Your task to perform on an android device: Open Youtube and go to the subscriptions tab Image 0: 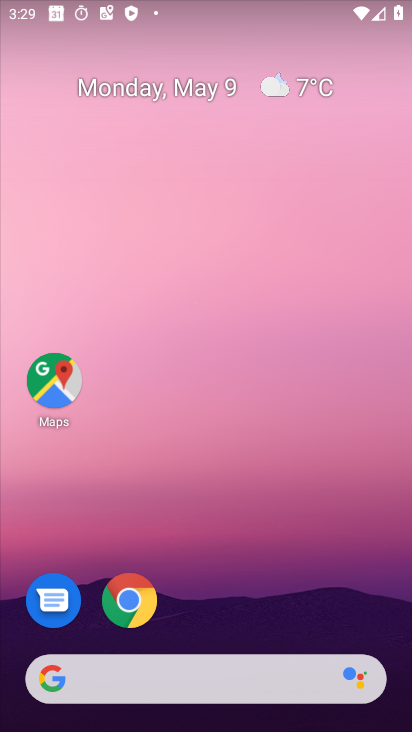
Step 0: drag from (265, 628) to (161, 139)
Your task to perform on an android device: Open Youtube and go to the subscriptions tab Image 1: 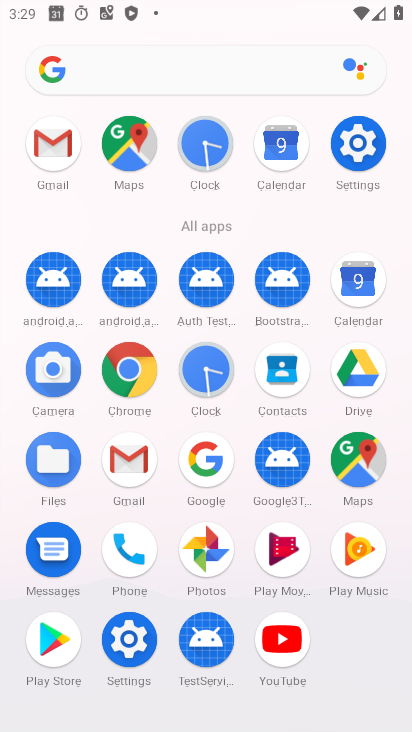
Step 1: click (287, 643)
Your task to perform on an android device: Open Youtube and go to the subscriptions tab Image 2: 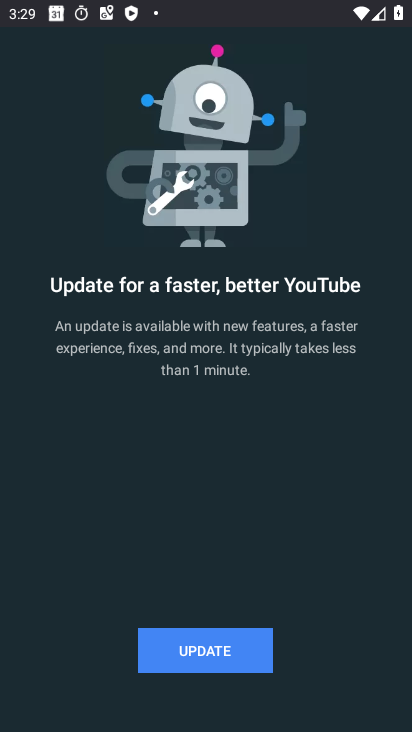
Step 2: click (233, 650)
Your task to perform on an android device: Open Youtube and go to the subscriptions tab Image 3: 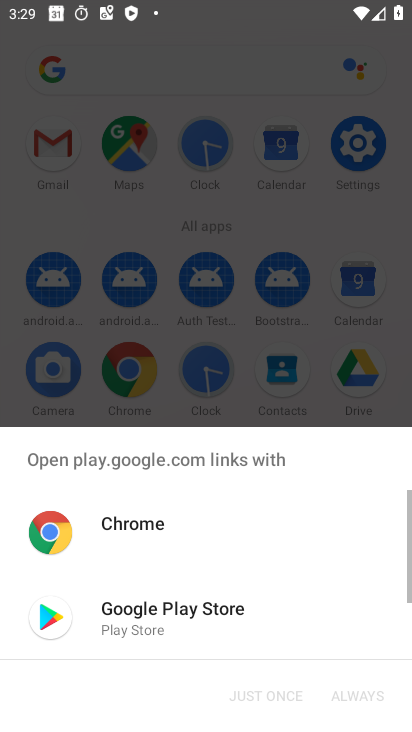
Step 3: click (112, 613)
Your task to perform on an android device: Open Youtube and go to the subscriptions tab Image 4: 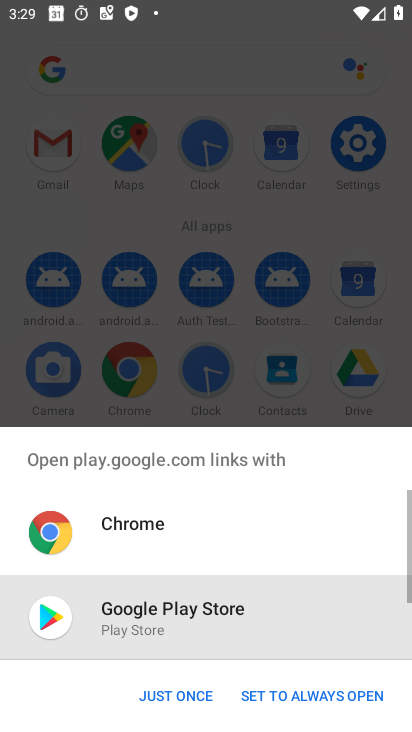
Step 4: click (259, 688)
Your task to perform on an android device: Open Youtube and go to the subscriptions tab Image 5: 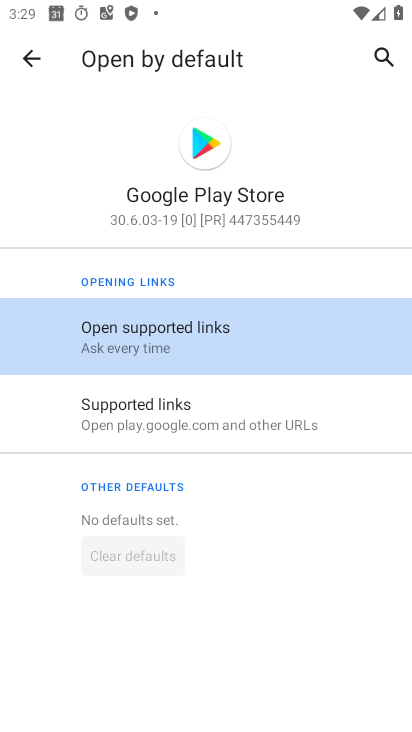
Step 5: click (37, 57)
Your task to perform on an android device: Open Youtube and go to the subscriptions tab Image 6: 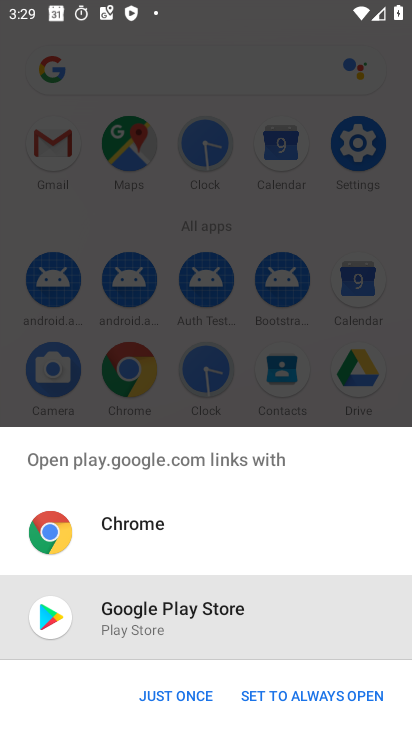
Step 6: click (182, 695)
Your task to perform on an android device: Open Youtube and go to the subscriptions tab Image 7: 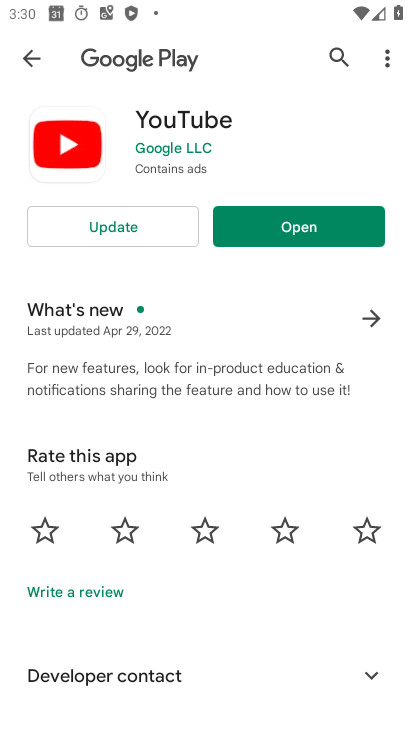
Step 7: click (147, 222)
Your task to perform on an android device: Open Youtube and go to the subscriptions tab Image 8: 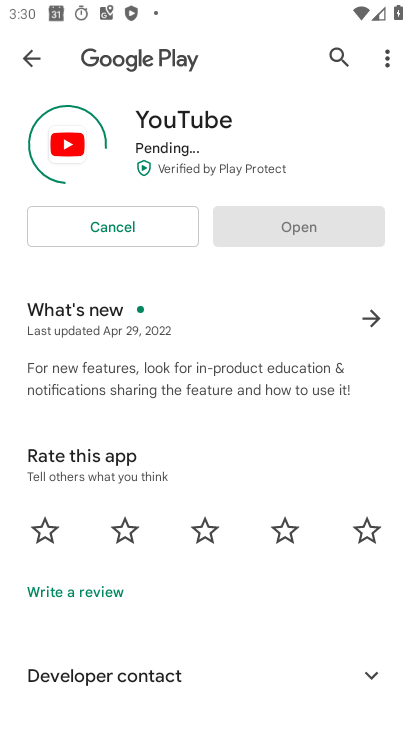
Step 8: task complete